Your task to perform on an android device: Play the last video I watched on Youtube Image 0: 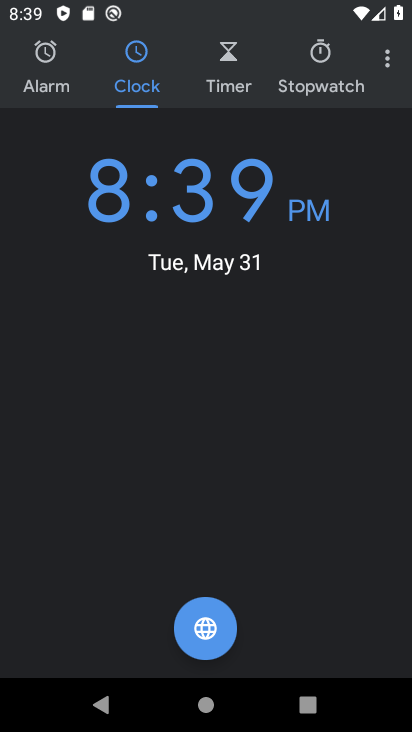
Step 0: press home button
Your task to perform on an android device: Play the last video I watched on Youtube Image 1: 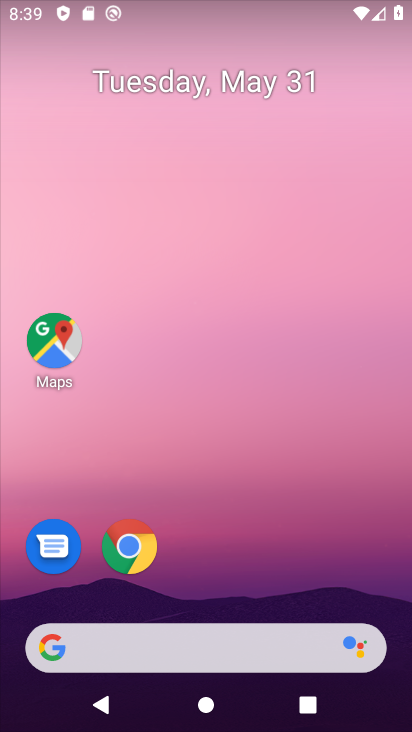
Step 1: drag from (392, 694) to (302, 64)
Your task to perform on an android device: Play the last video I watched on Youtube Image 2: 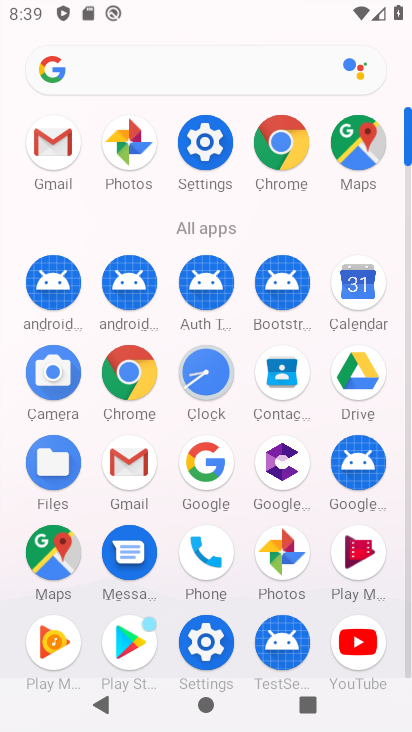
Step 2: click (359, 649)
Your task to perform on an android device: Play the last video I watched on Youtube Image 3: 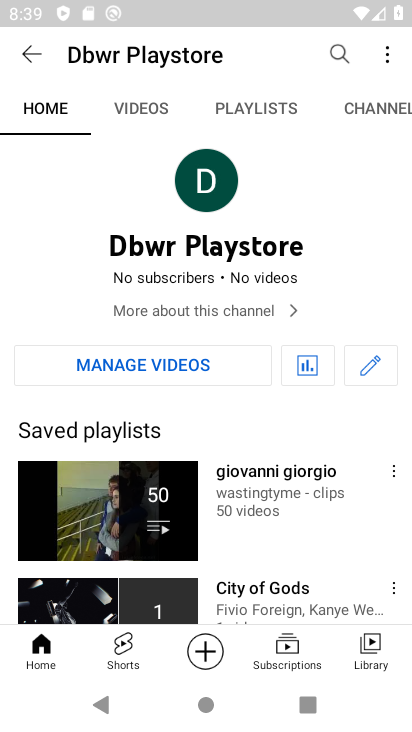
Step 3: click (362, 641)
Your task to perform on an android device: Play the last video I watched on Youtube Image 4: 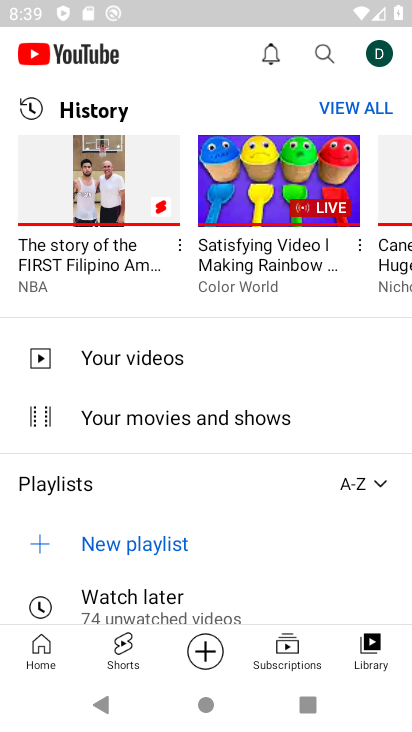
Step 4: click (105, 185)
Your task to perform on an android device: Play the last video I watched on Youtube Image 5: 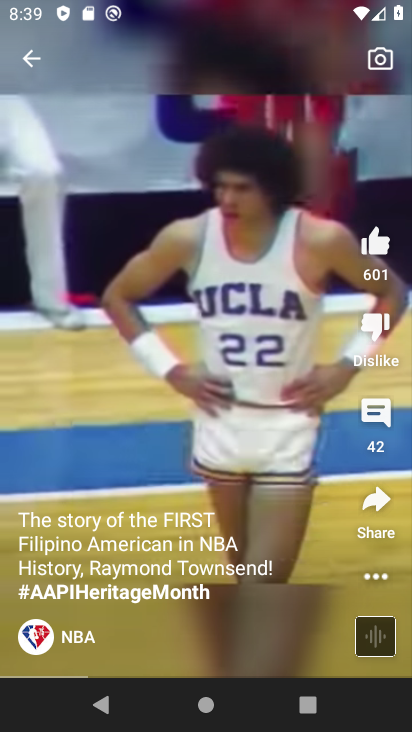
Step 5: task complete